Your task to perform on an android device: Open display settings Image 0: 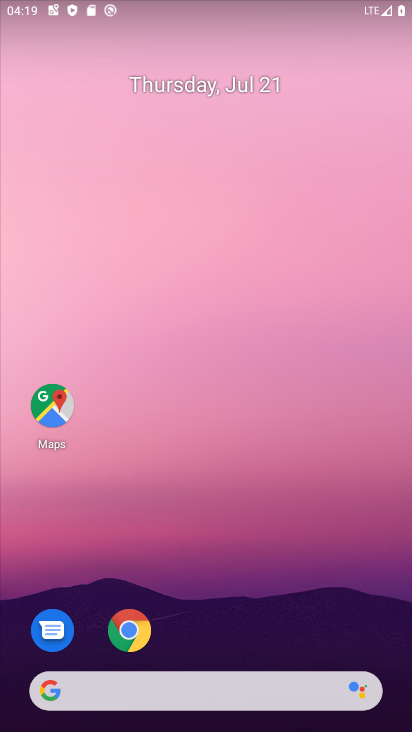
Step 0: drag from (239, 630) to (229, 64)
Your task to perform on an android device: Open display settings Image 1: 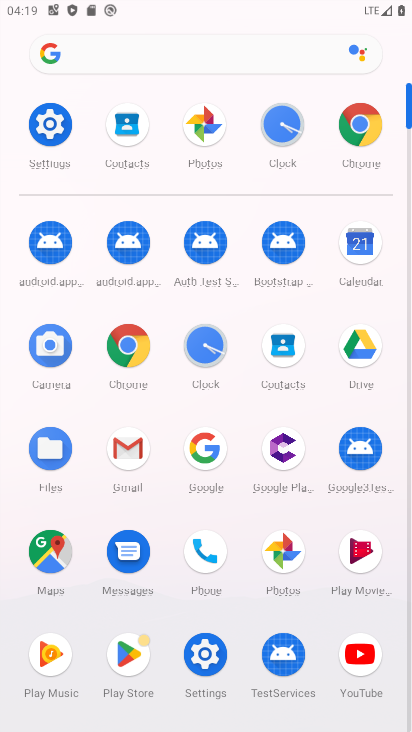
Step 1: click (52, 128)
Your task to perform on an android device: Open display settings Image 2: 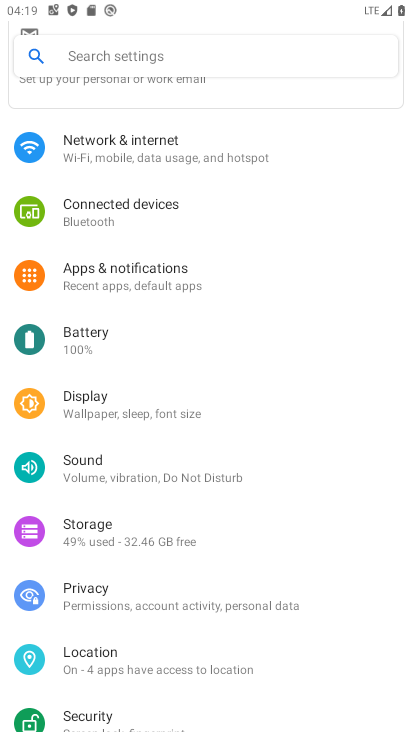
Step 2: click (111, 404)
Your task to perform on an android device: Open display settings Image 3: 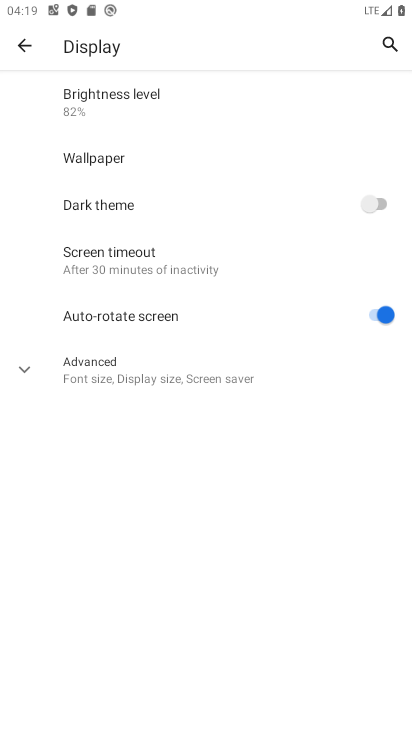
Step 3: task complete